Your task to perform on an android device: When is my next meeting? Image 0: 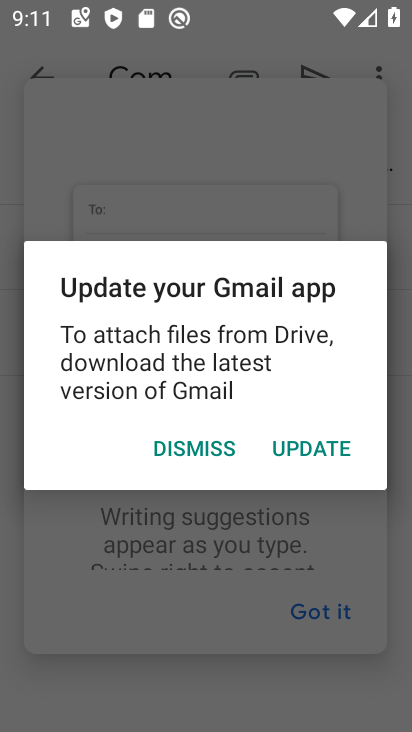
Step 0: press home button
Your task to perform on an android device: When is my next meeting? Image 1: 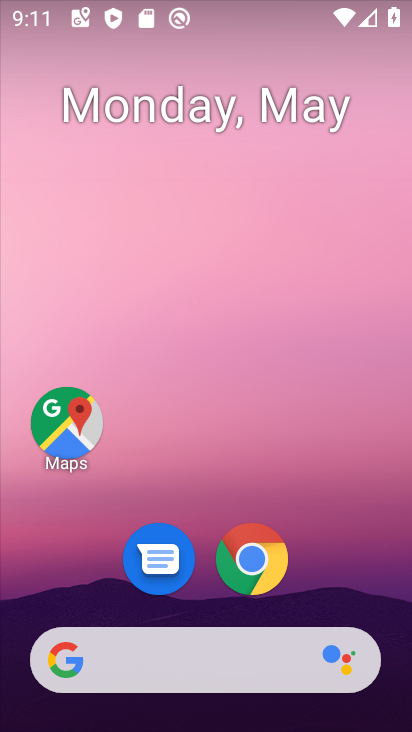
Step 1: drag from (321, 549) to (222, 159)
Your task to perform on an android device: When is my next meeting? Image 2: 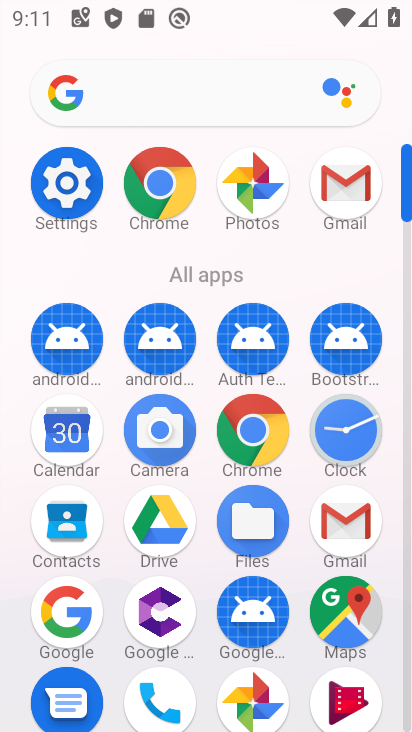
Step 2: click (63, 426)
Your task to perform on an android device: When is my next meeting? Image 3: 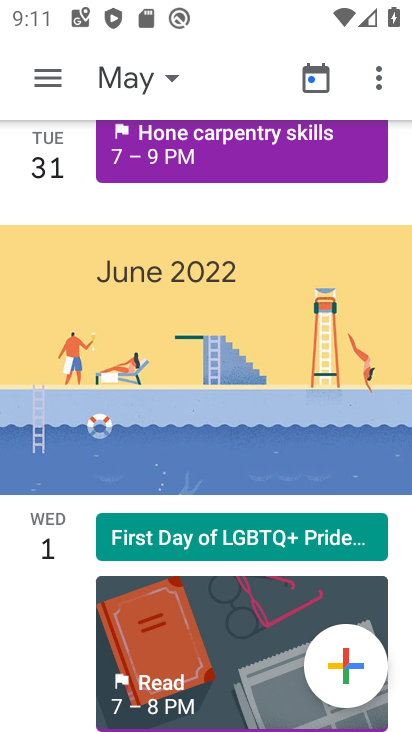
Step 3: click (171, 77)
Your task to perform on an android device: When is my next meeting? Image 4: 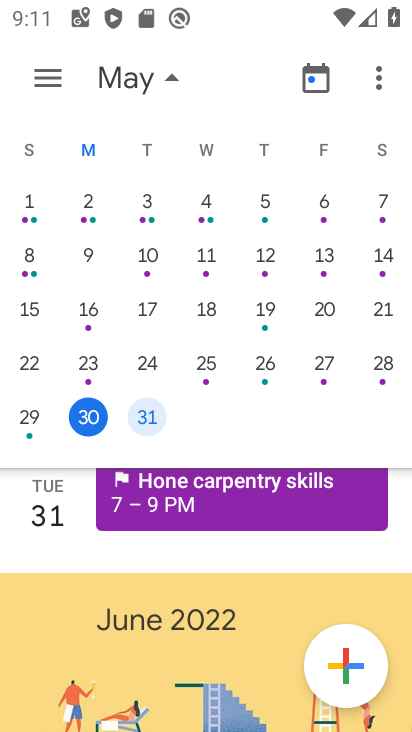
Step 4: click (86, 419)
Your task to perform on an android device: When is my next meeting? Image 5: 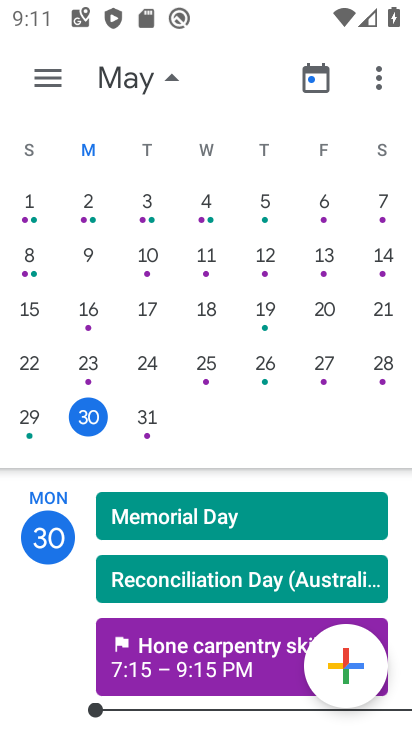
Step 5: click (97, 419)
Your task to perform on an android device: When is my next meeting? Image 6: 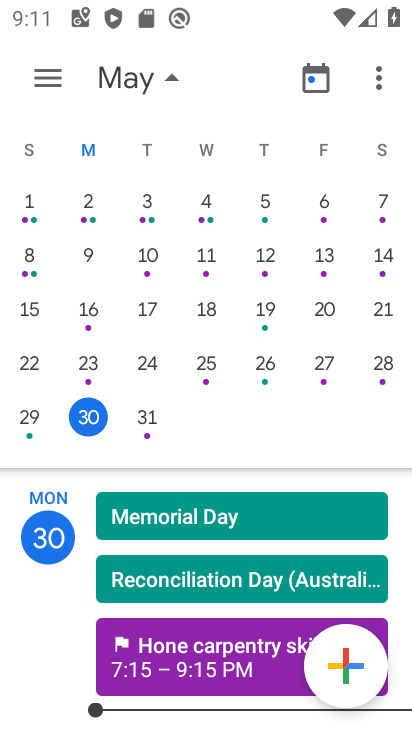
Step 6: task complete